Your task to perform on an android device: Open Amazon Image 0: 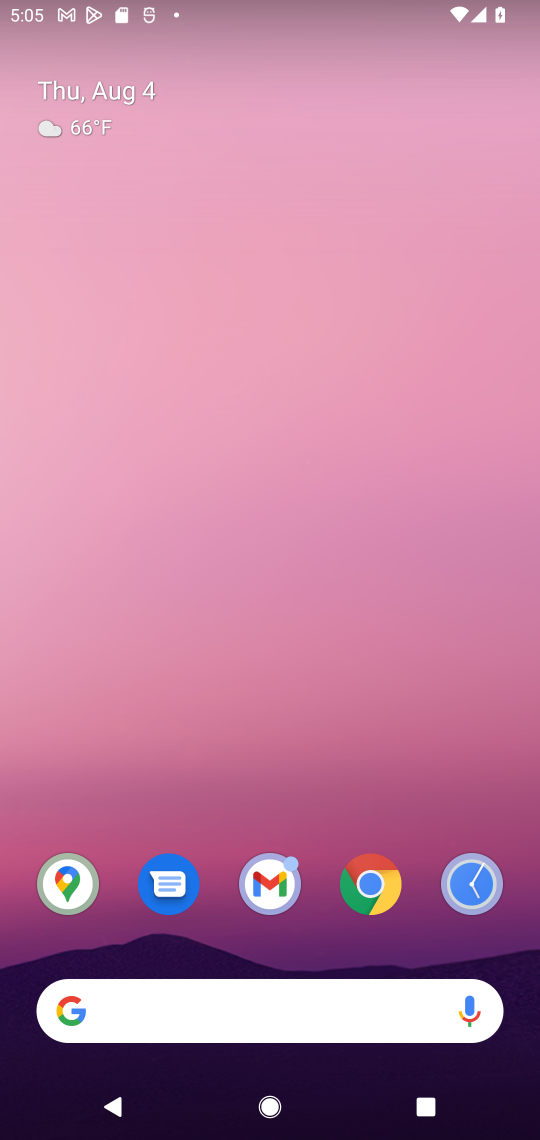
Step 0: click (388, 871)
Your task to perform on an android device: Open Amazon Image 1: 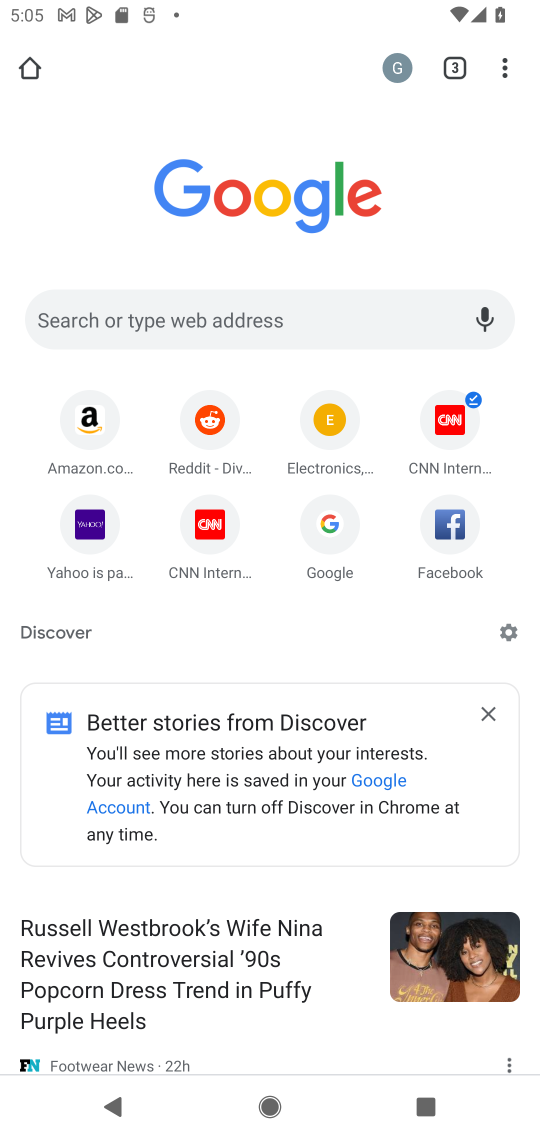
Step 1: click (110, 426)
Your task to perform on an android device: Open Amazon Image 2: 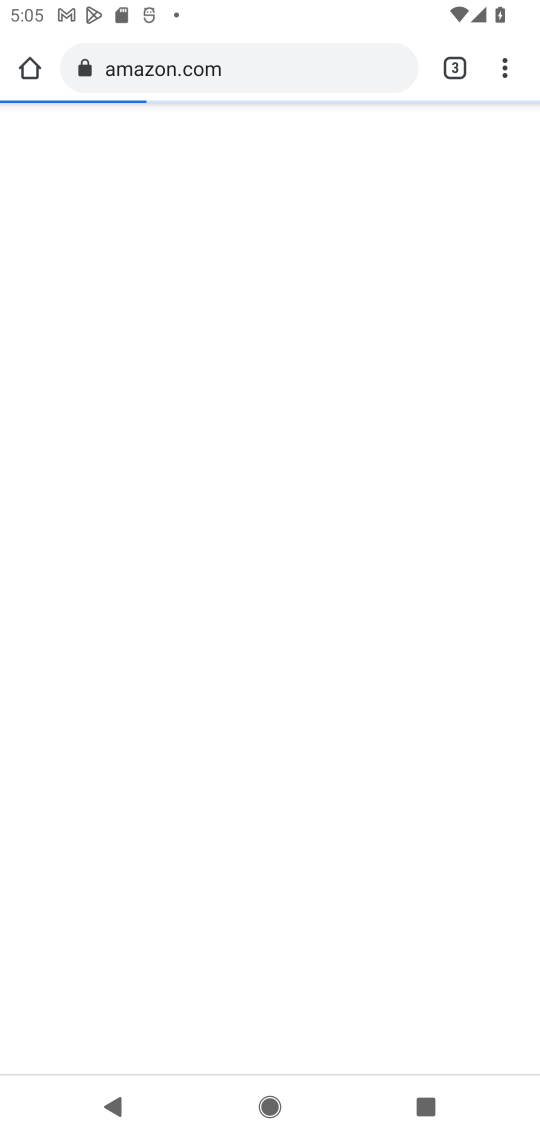
Step 2: task complete